Your task to perform on an android device: uninstall "Life360: Find Family & Friends" Image 0: 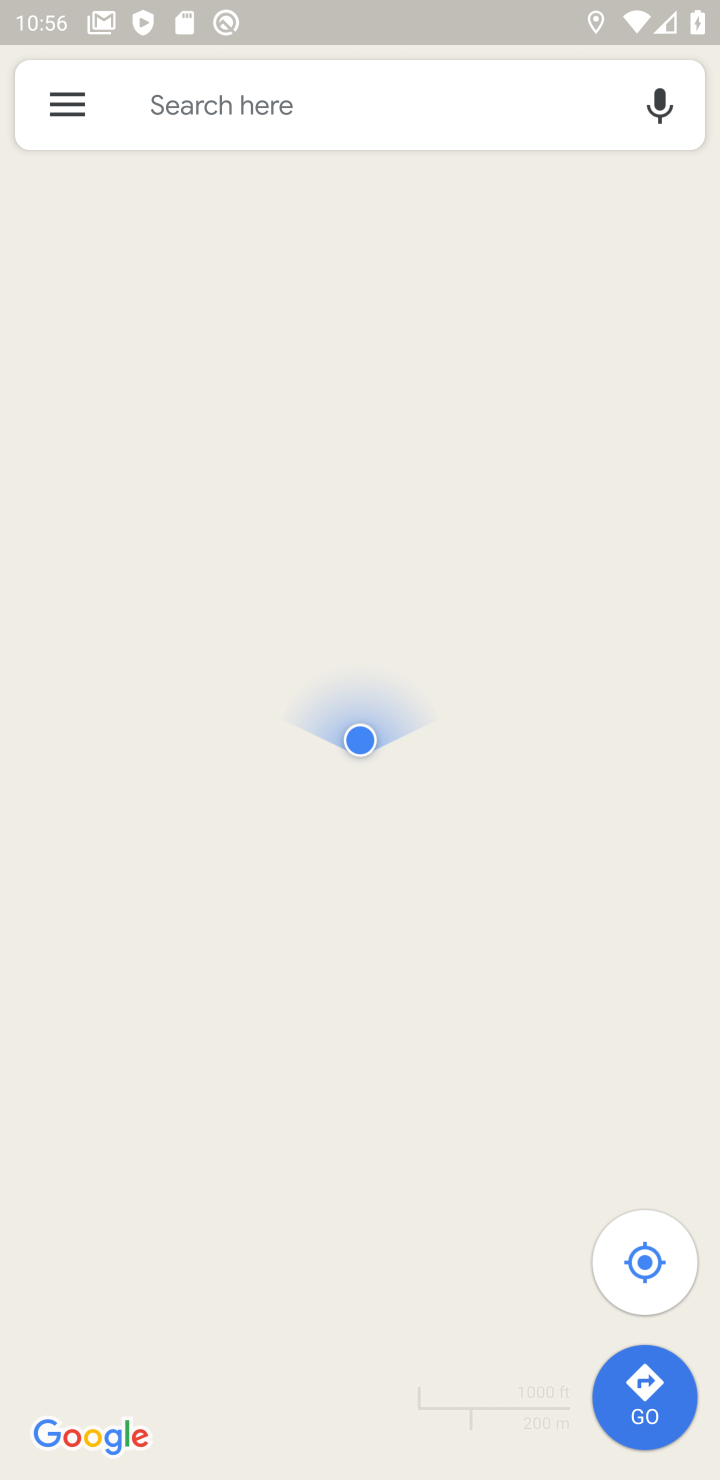
Step 0: press home button
Your task to perform on an android device: uninstall "Life360: Find Family & Friends" Image 1: 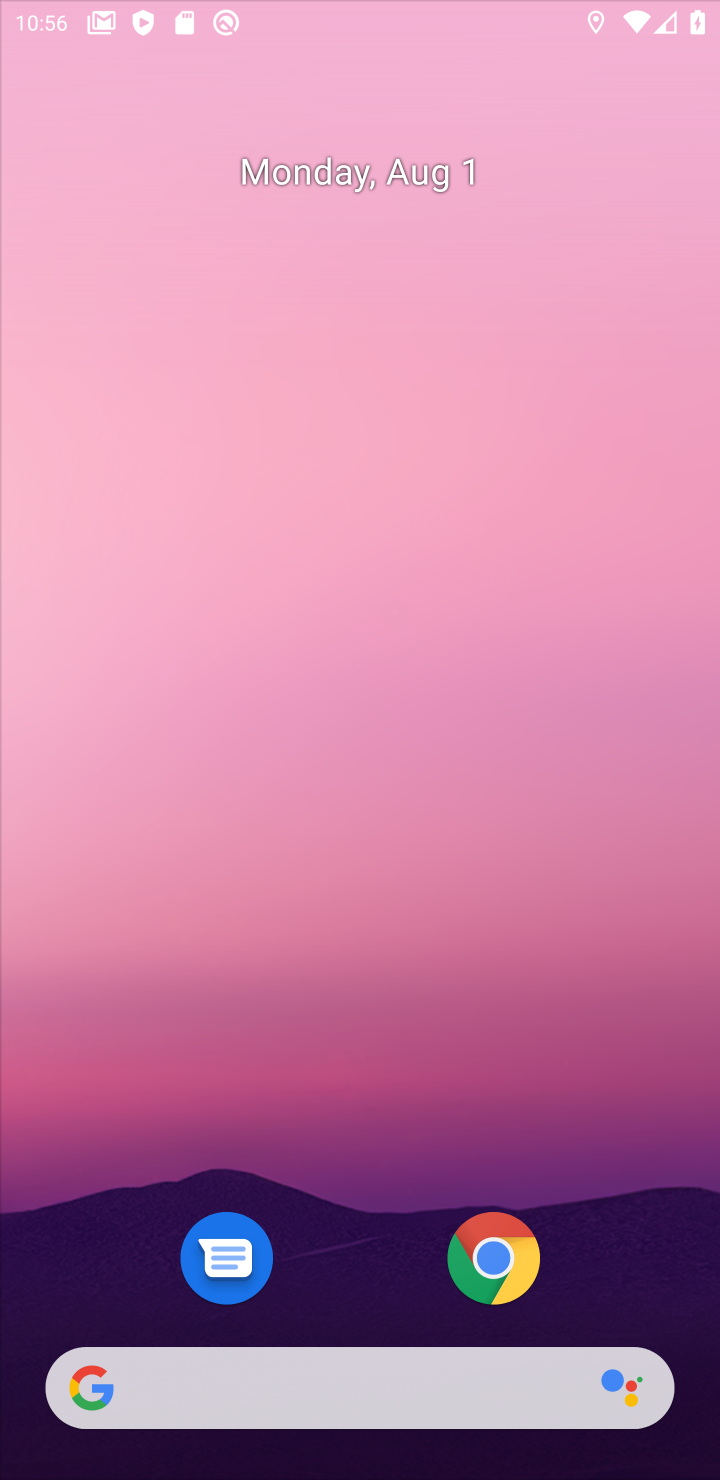
Step 1: press home button
Your task to perform on an android device: uninstall "Life360: Find Family & Friends" Image 2: 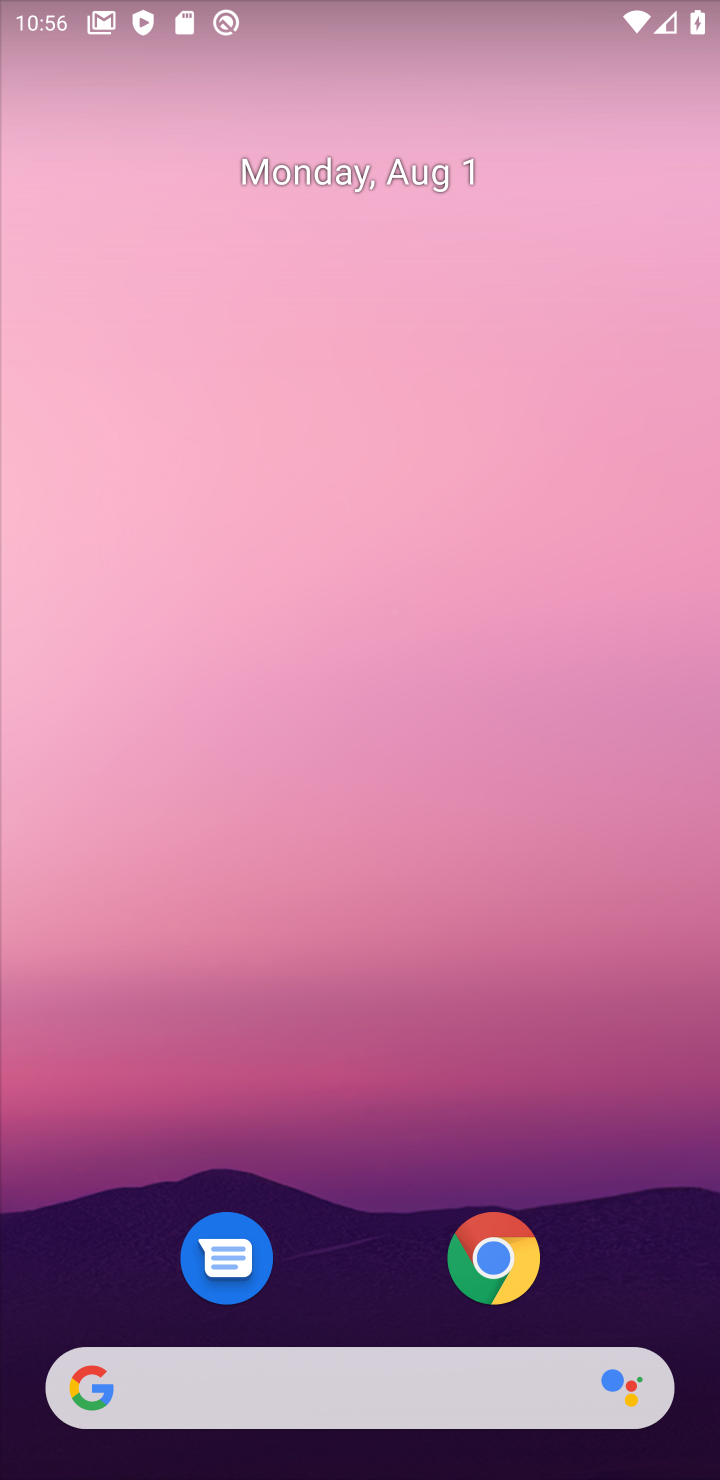
Step 2: drag from (429, 1117) to (275, 208)
Your task to perform on an android device: uninstall "Life360: Find Family & Friends" Image 3: 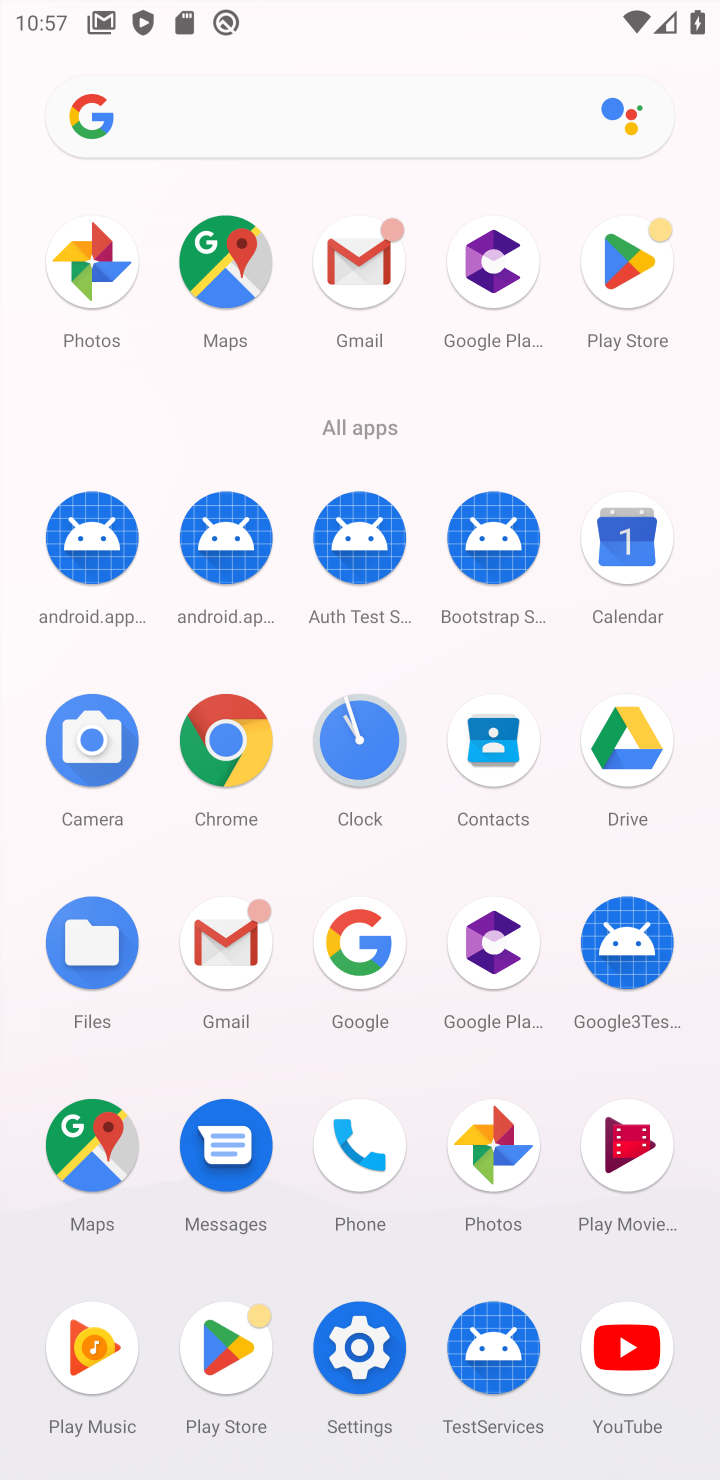
Step 3: click (640, 243)
Your task to perform on an android device: uninstall "Life360: Find Family & Friends" Image 4: 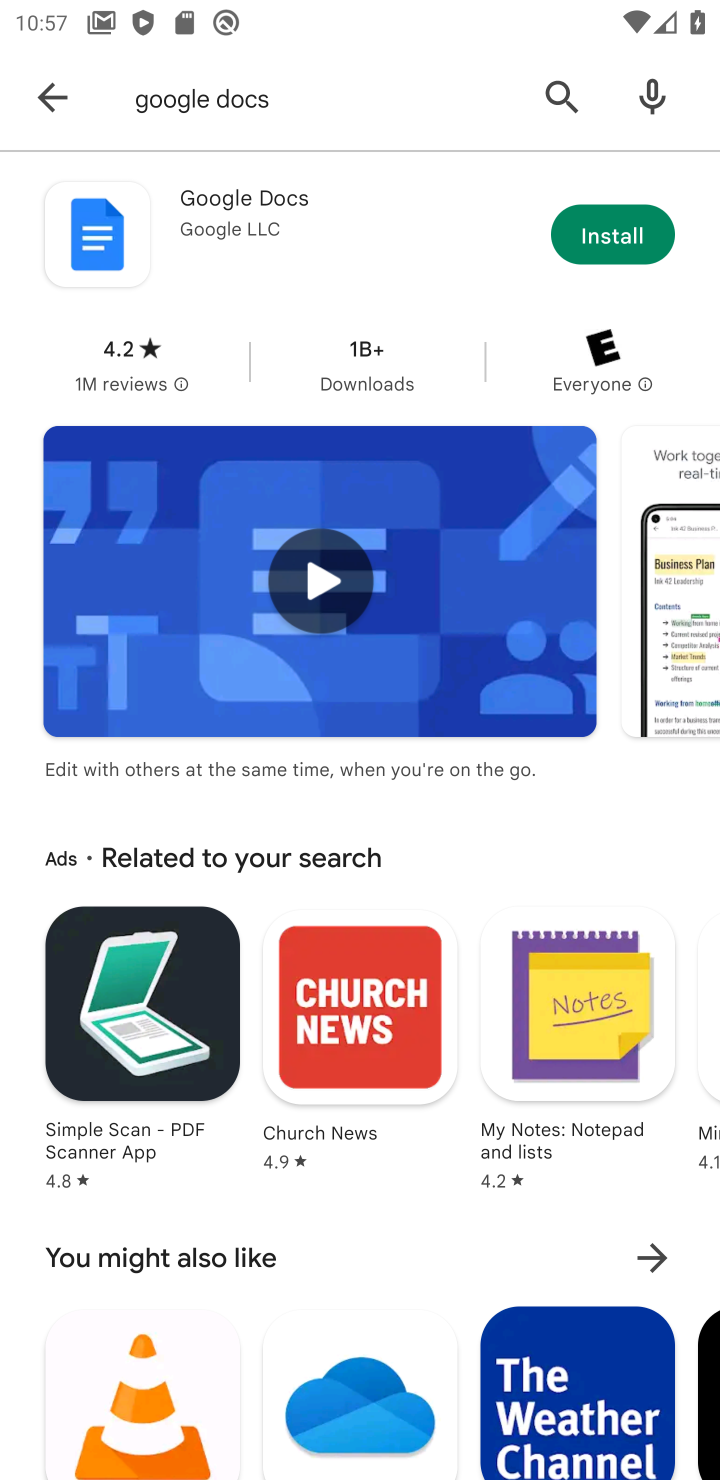
Step 4: click (550, 111)
Your task to perform on an android device: uninstall "Life360: Find Family & Friends" Image 5: 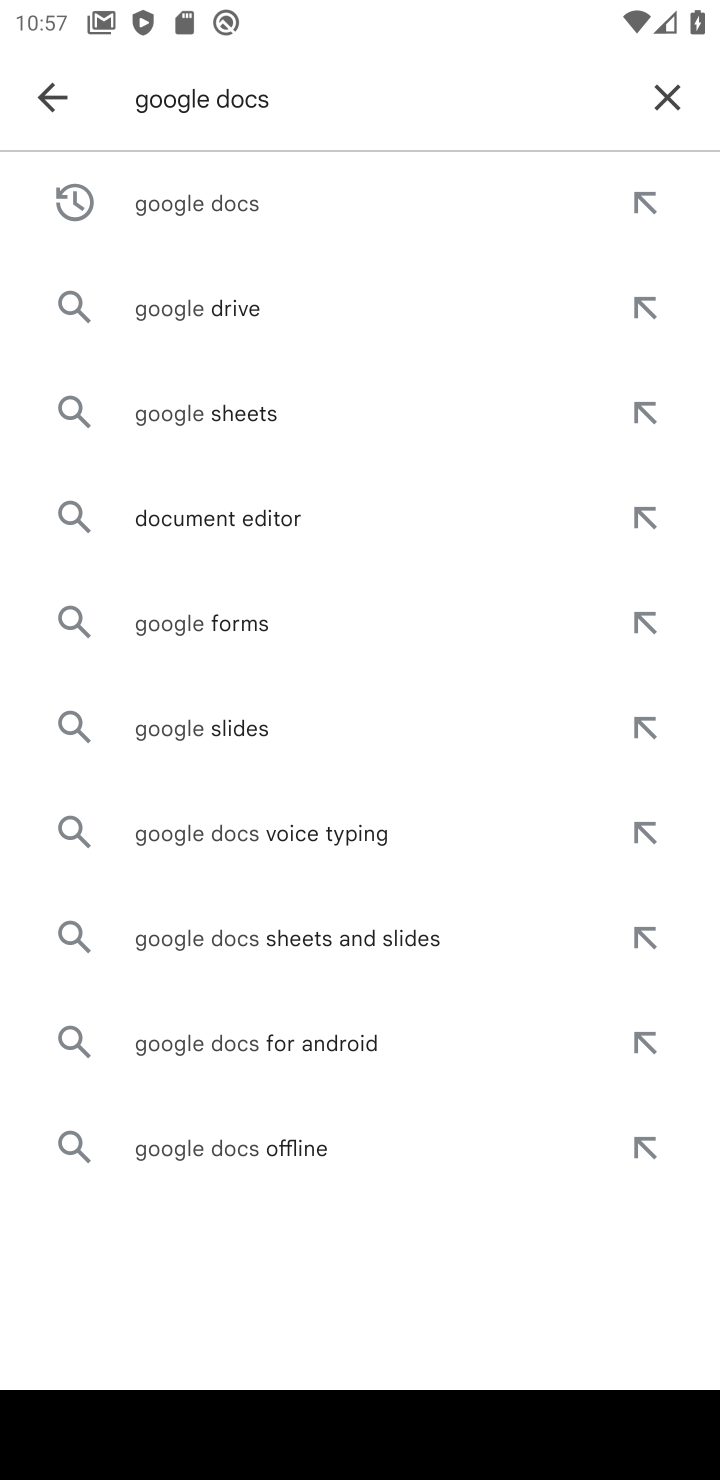
Step 5: click (661, 99)
Your task to perform on an android device: uninstall "Life360: Find Family & Friends" Image 6: 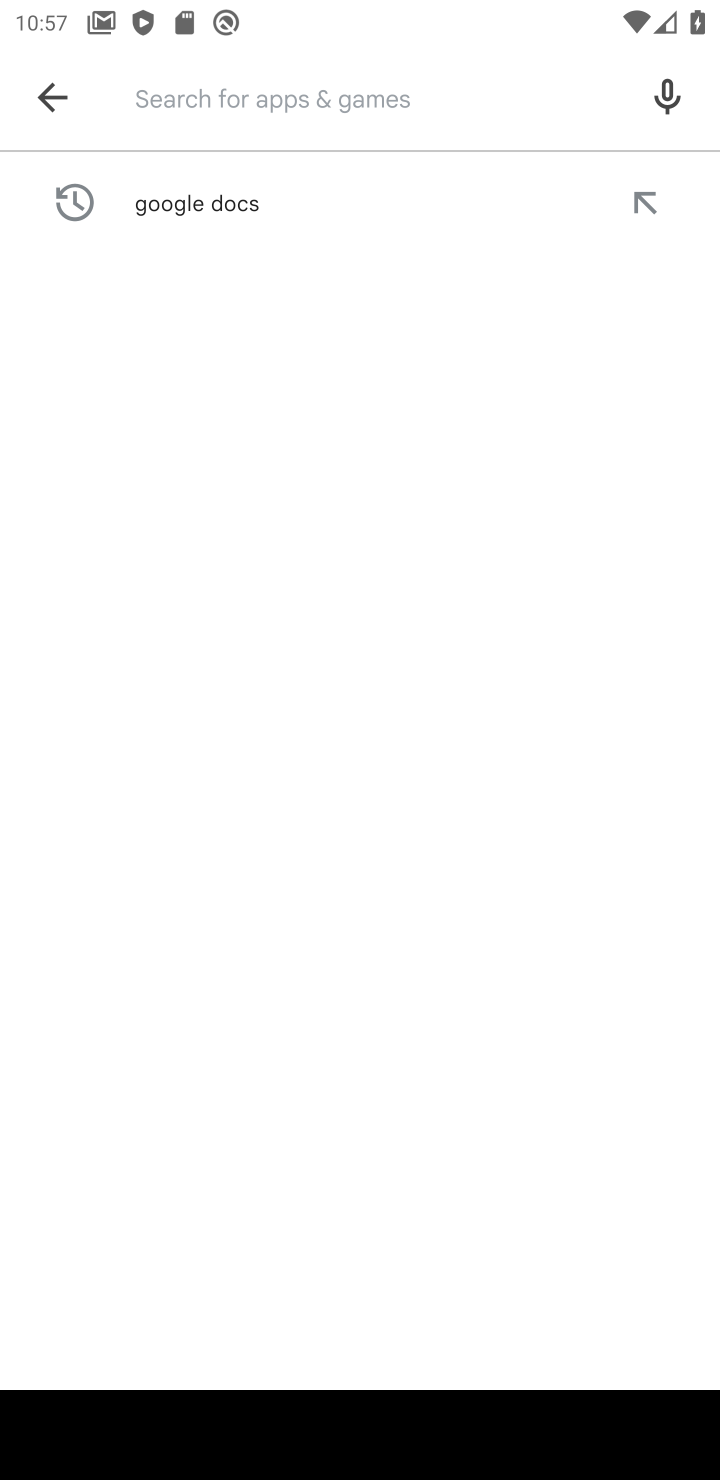
Step 6: type "life360\"
Your task to perform on an android device: uninstall "Life360: Find Family & Friends" Image 7: 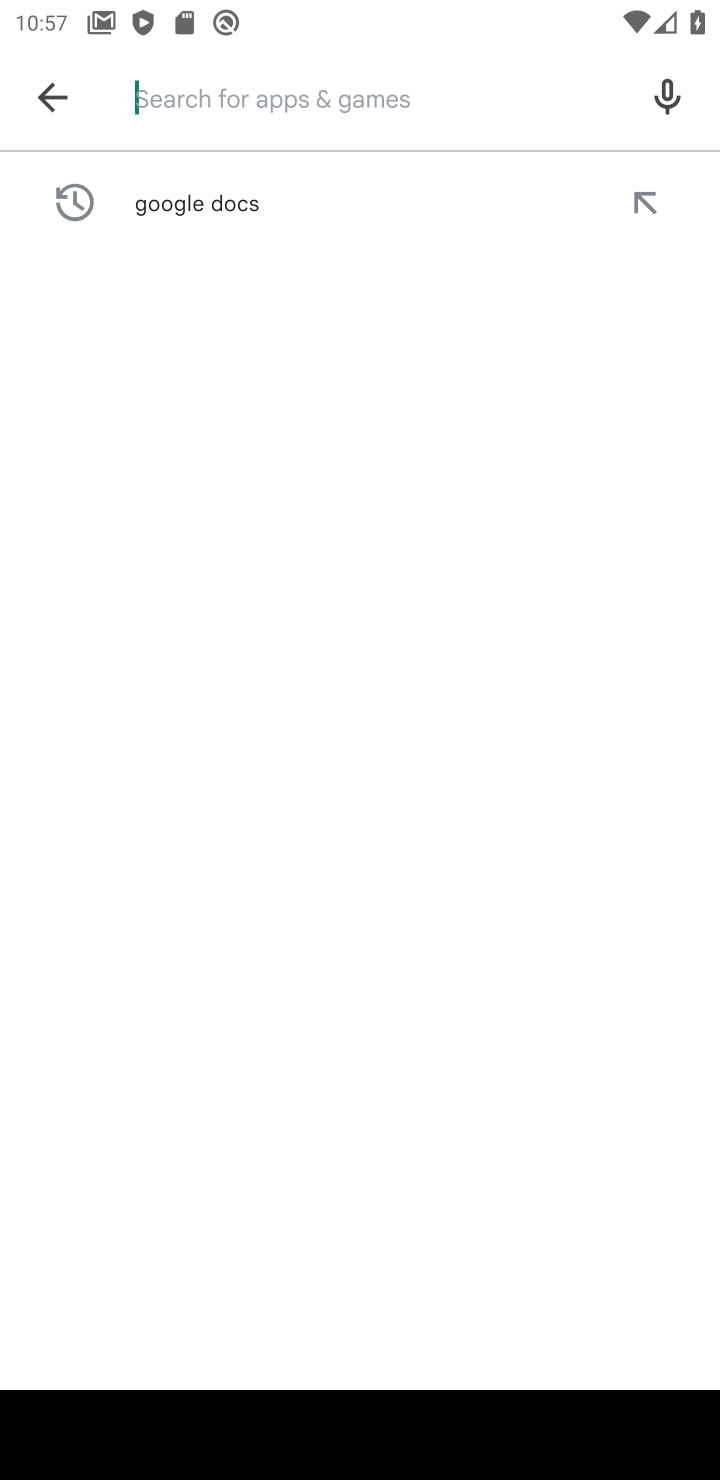
Step 7: click (369, 109)
Your task to perform on an android device: uninstall "Life360: Find Family & Friends" Image 8: 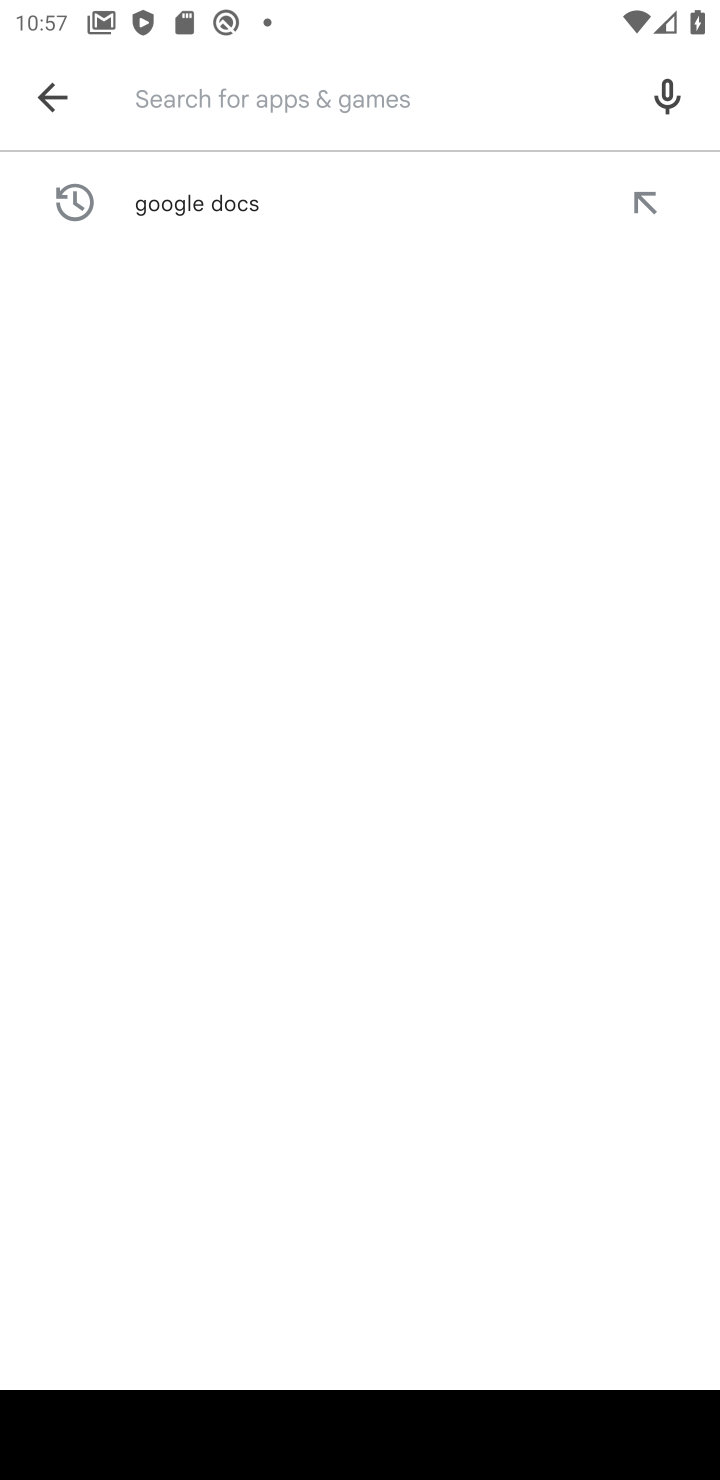
Step 8: type "life360"
Your task to perform on an android device: uninstall "Life360: Find Family & Friends" Image 9: 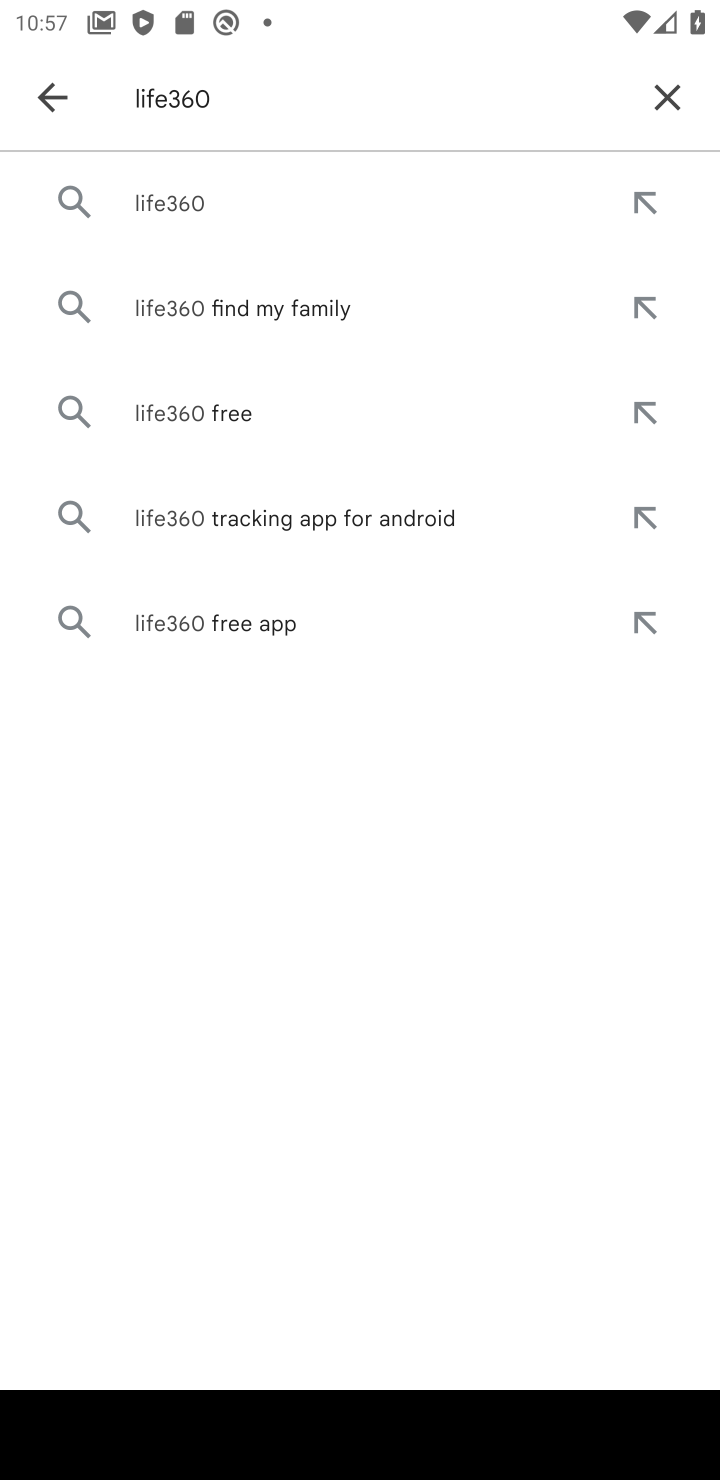
Step 9: click (228, 201)
Your task to perform on an android device: uninstall "Life360: Find Family & Friends" Image 10: 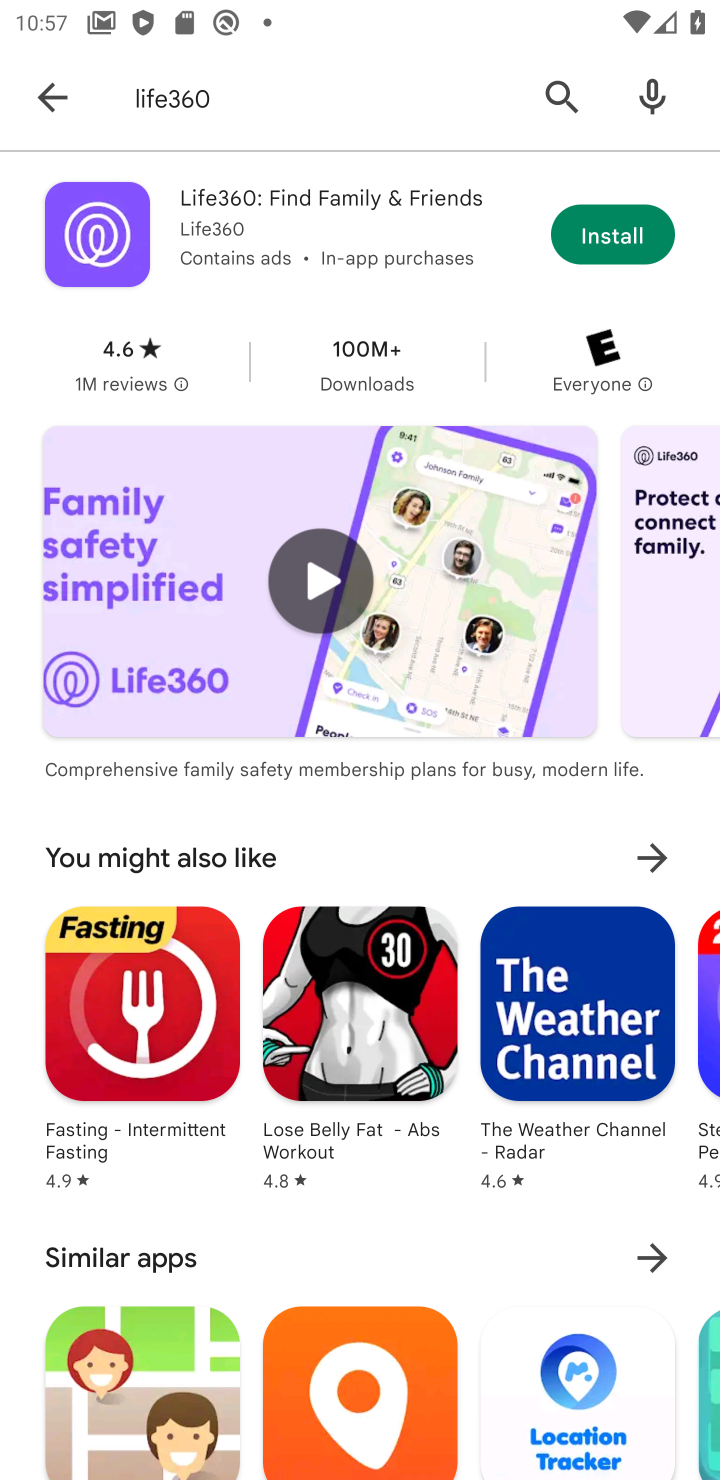
Step 10: task complete